Your task to perform on an android device: open chrome and create a bookmark for the current page Image 0: 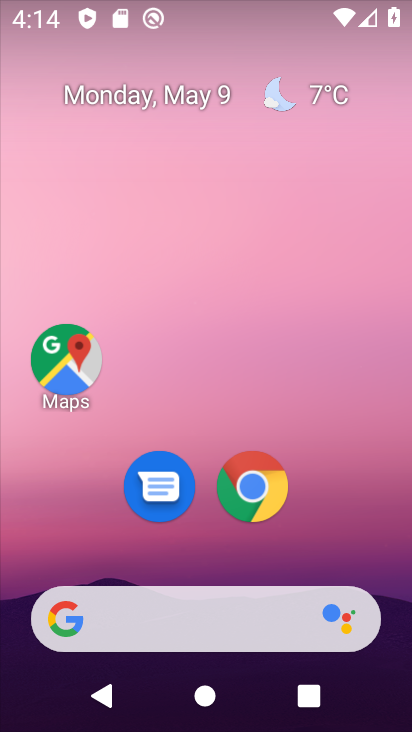
Step 0: click (243, 489)
Your task to perform on an android device: open chrome and create a bookmark for the current page Image 1: 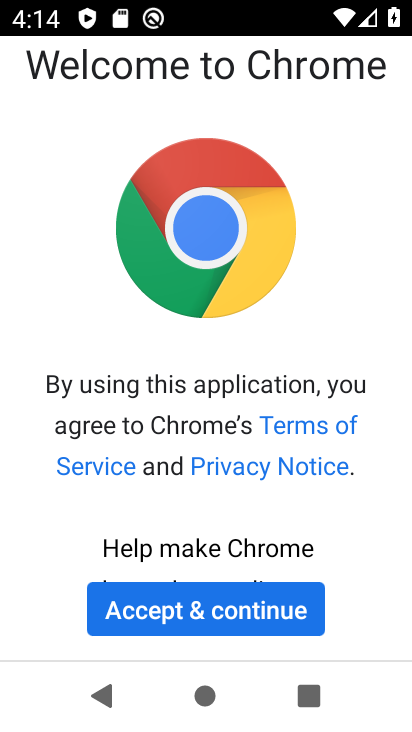
Step 1: click (232, 601)
Your task to perform on an android device: open chrome and create a bookmark for the current page Image 2: 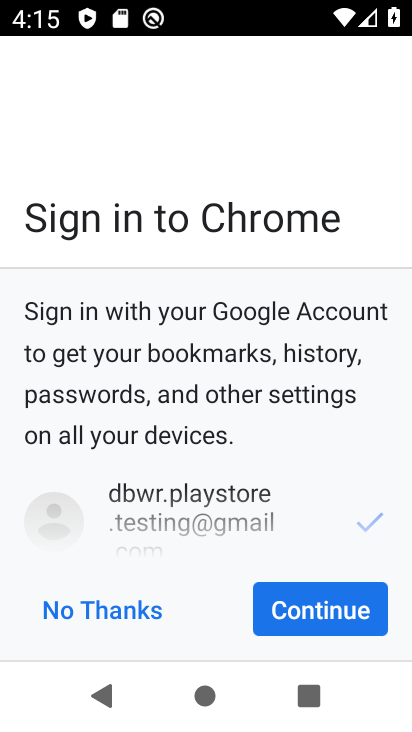
Step 2: click (269, 608)
Your task to perform on an android device: open chrome and create a bookmark for the current page Image 3: 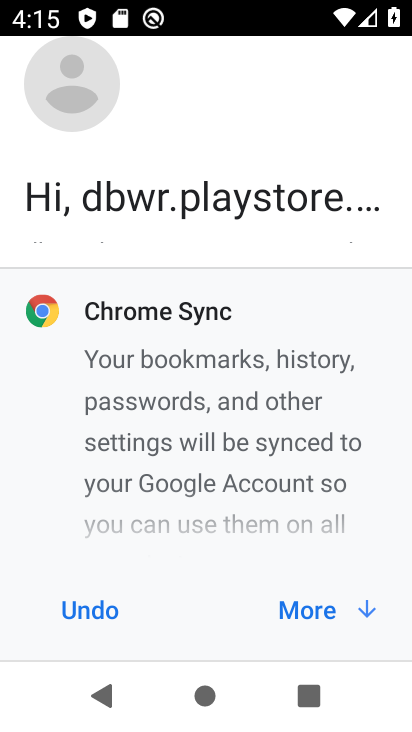
Step 3: click (292, 617)
Your task to perform on an android device: open chrome and create a bookmark for the current page Image 4: 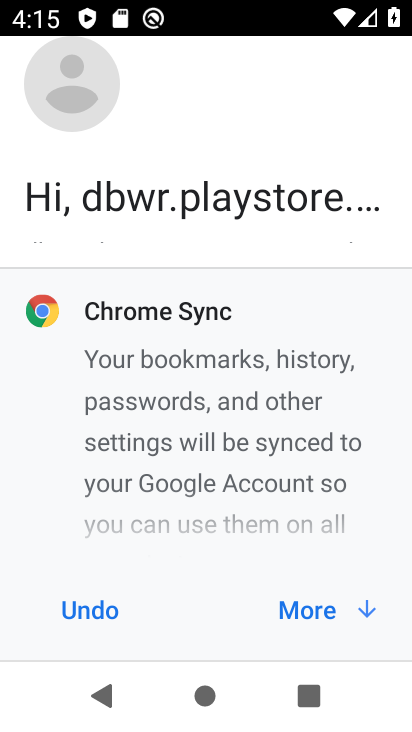
Step 4: click (292, 617)
Your task to perform on an android device: open chrome and create a bookmark for the current page Image 5: 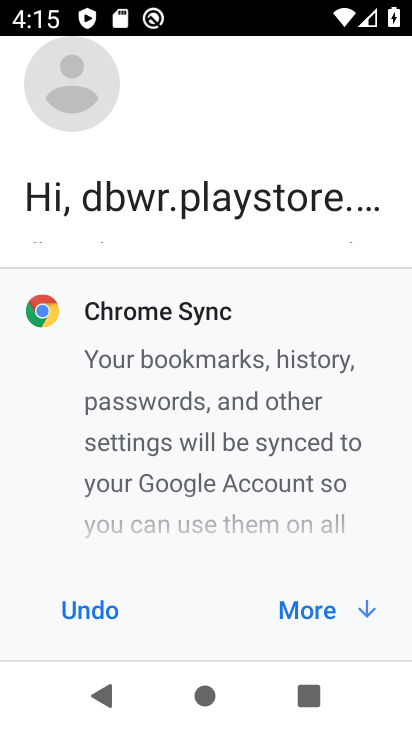
Step 5: click (292, 617)
Your task to perform on an android device: open chrome and create a bookmark for the current page Image 6: 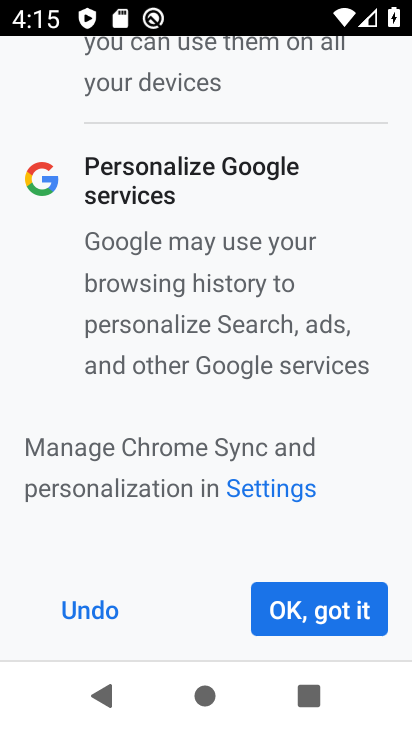
Step 6: click (292, 617)
Your task to perform on an android device: open chrome and create a bookmark for the current page Image 7: 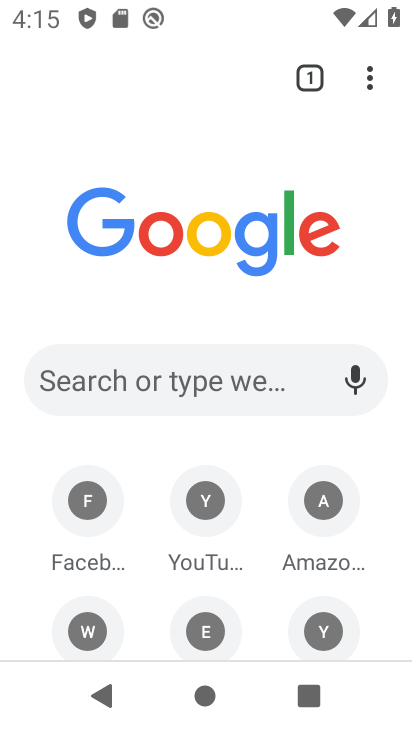
Step 7: click (368, 75)
Your task to perform on an android device: open chrome and create a bookmark for the current page Image 8: 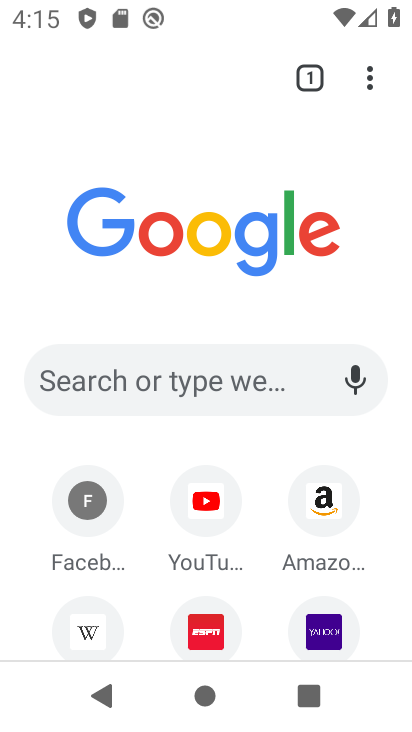
Step 8: click (368, 71)
Your task to perform on an android device: open chrome and create a bookmark for the current page Image 9: 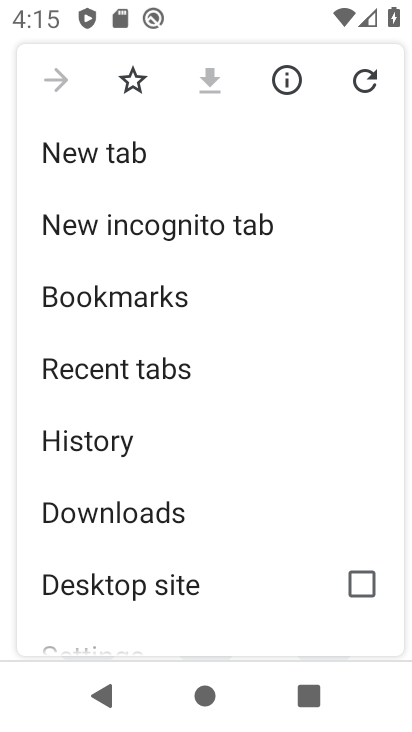
Step 9: click (131, 75)
Your task to perform on an android device: open chrome and create a bookmark for the current page Image 10: 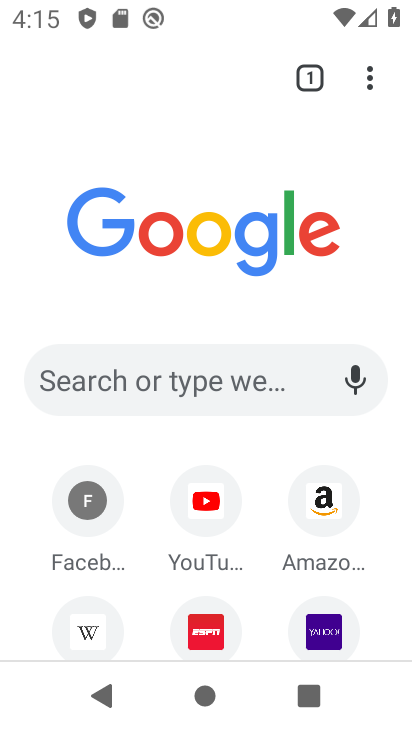
Step 10: task complete